Your task to perform on an android device: Open the web browser Image 0: 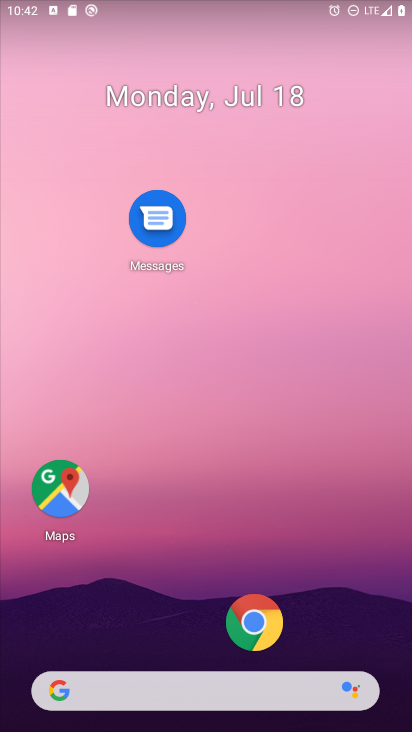
Step 0: drag from (171, 705) to (247, 269)
Your task to perform on an android device: Open the web browser Image 1: 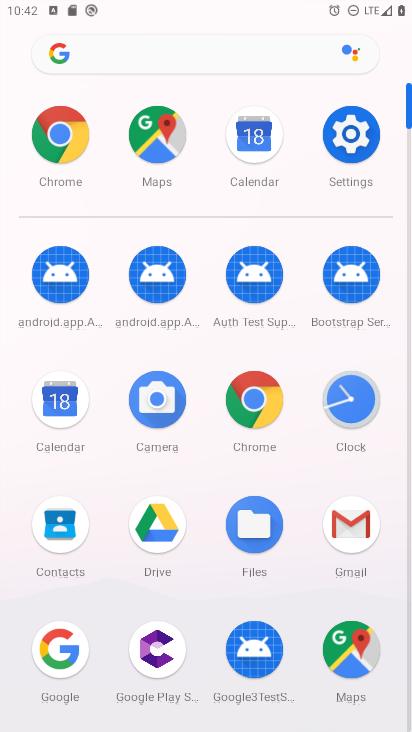
Step 1: click (71, 142)
Your task to perform on an android device: Open the web browser Image 2: 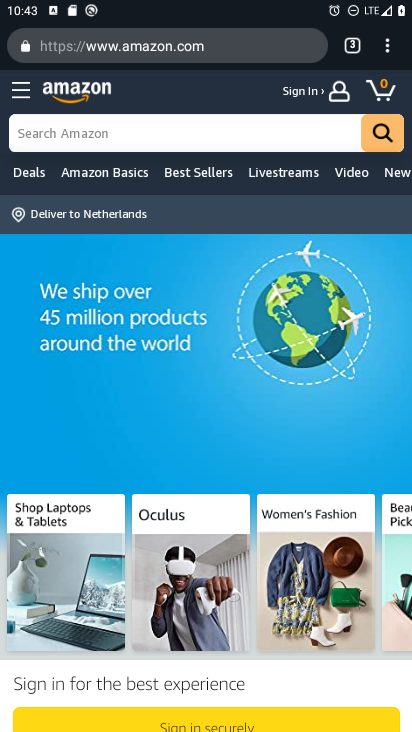
Step 2: task complete